Your task to perform on an android device: When is my next appointment? Image 0: 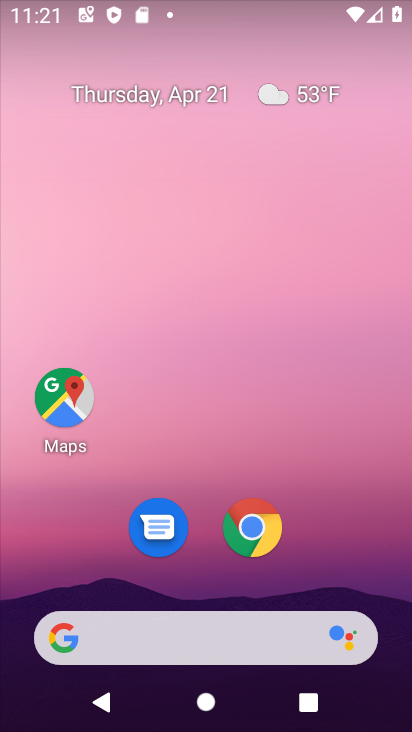
Step 0: drag from (364, 560) to (367, 185)
Your task to perform on an android device: When is my next appointment? Image 1: 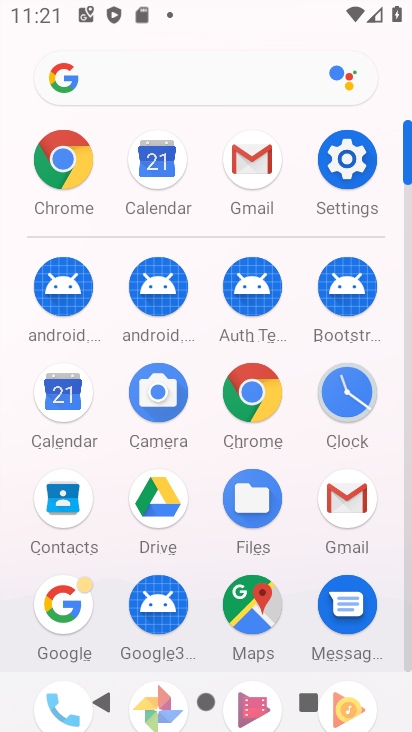
Step 1: click (48, 394)
Your task to perform on an android device: When is my next appointment? Image 2: 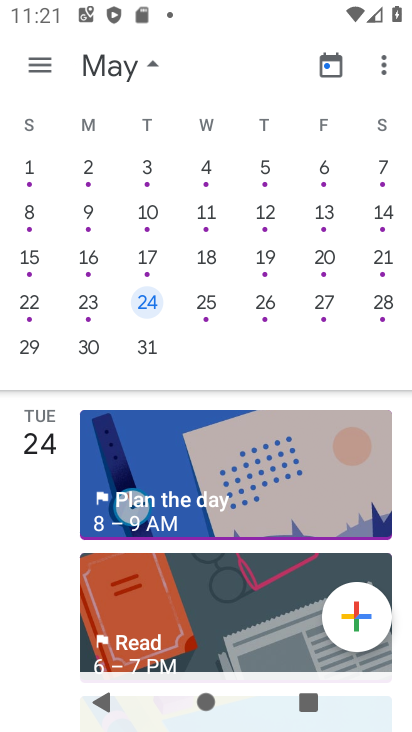
Step 2: drag from (33, 369) to (412, 380)
Your task to perform on an android device: When is my next appointment? Image 3: 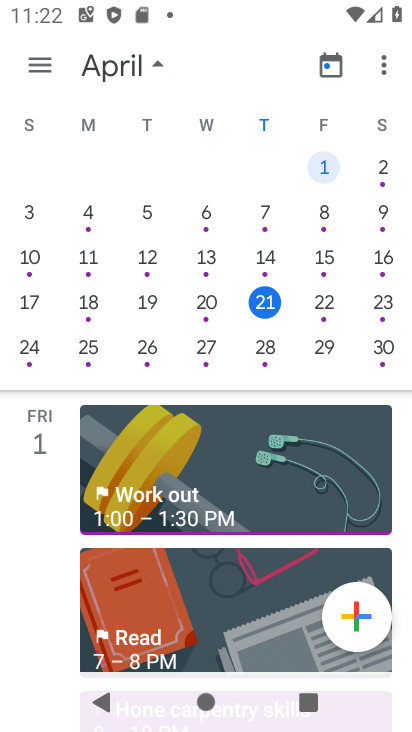
Step 3: click (384, 293)
Your task to perform on an android device: When is my next appointment? Image 4: 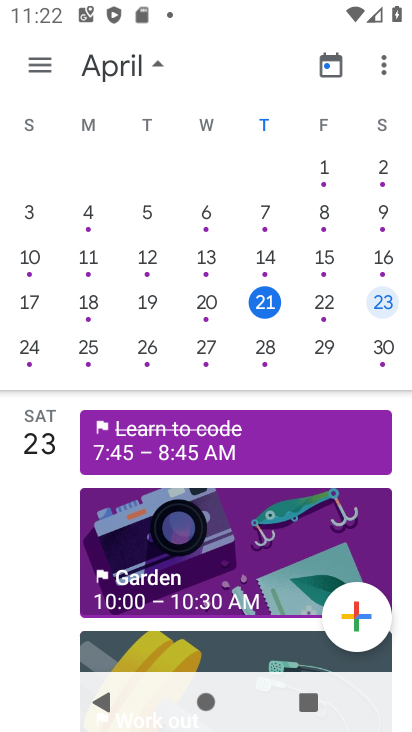
Step 4: click (210, 548)
Your task to perform on an android device: When is my next appointment? Image 5: 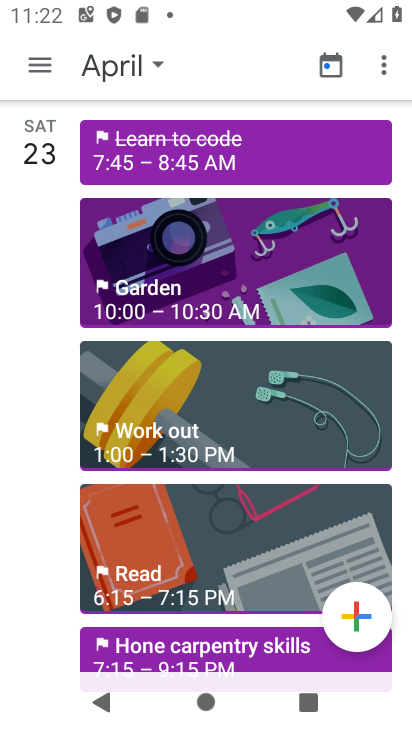
Step 5: click (183, 257)
Your task to perform on an android device: When is my next appointment? Image 6: 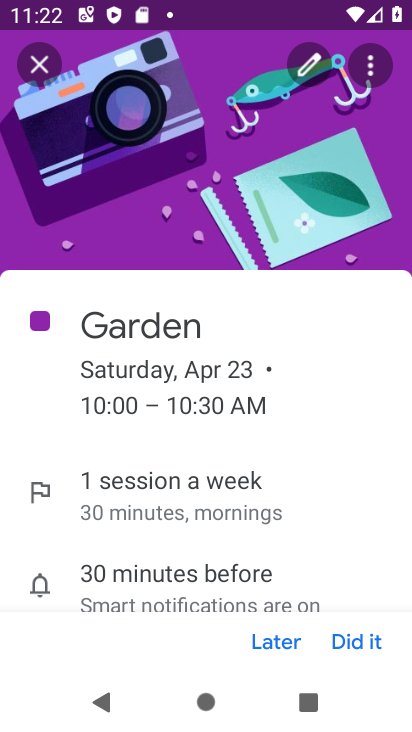
Step 6: task complete